Your task to perform on an android device: Check the news Image 0: 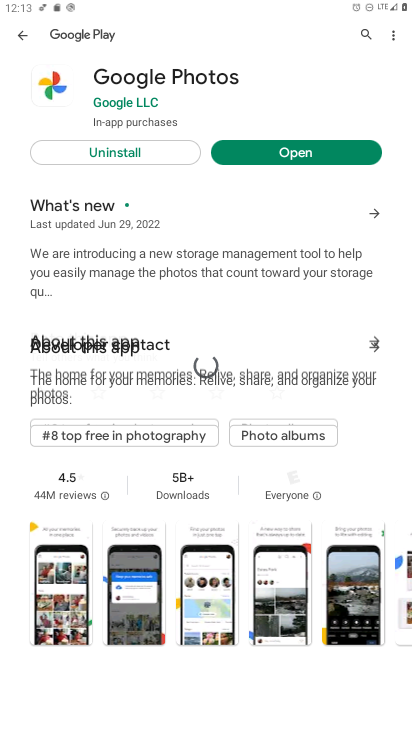
Step 0: press home button
Your task to perform on an android device: Check the news Image 1: 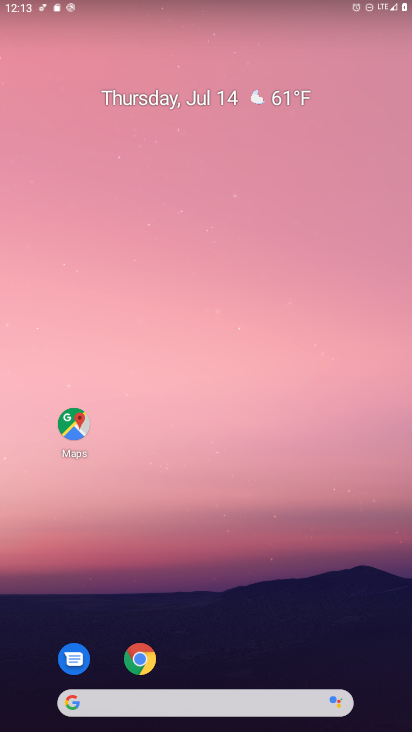
Step 1: task complete